Your task to perform on an android device: Go to privacy settings Image 0: 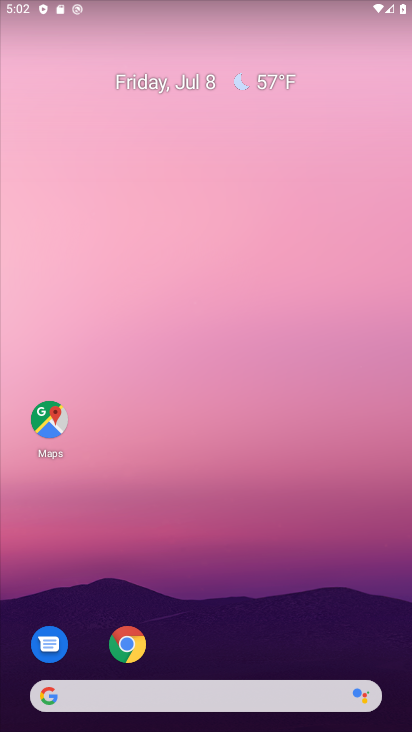
Step 0: drag from (192, 697) to (145, 23)
Your task to perform on an android device: Go to privacy settings Image 1: 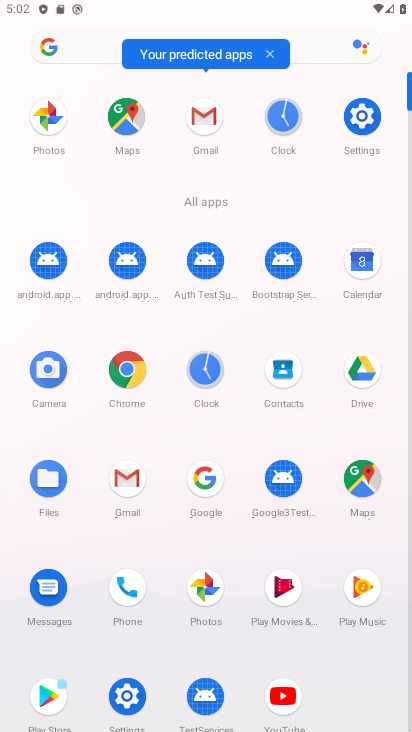
Step 1: click (361, 116)
Your task to perform on an android device: Go to privacy settings Image 2: 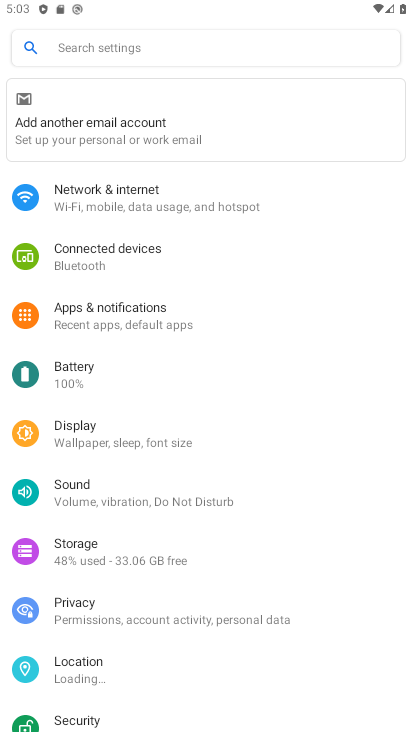
Step 2: click (83, 613)
Your task to perform on an android device: Go to privacy settings Image 3: 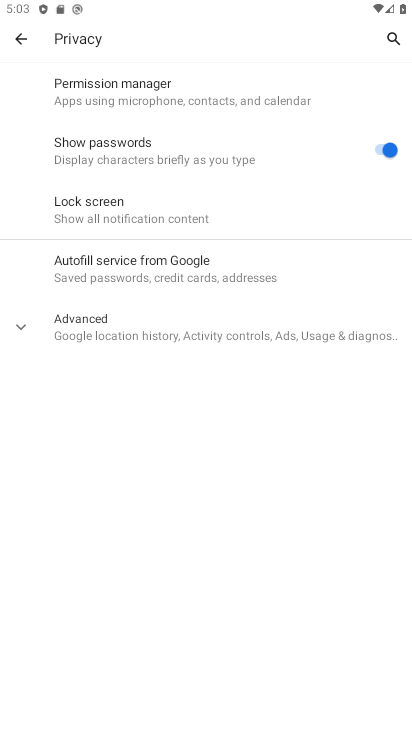
Step 3: task complete